Your task to perform on an android device: turn on the 12-hour format for clock Image 0: 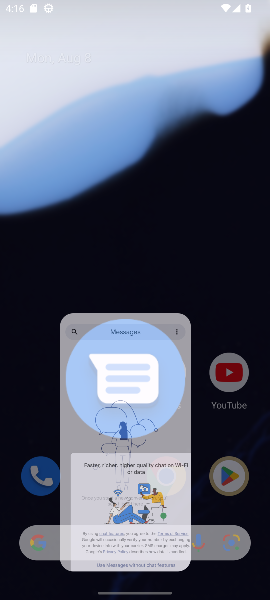
Step 0: click (72, 208)
Your task to perform on an android device: turn on the 12-hour format for clock Image 1: 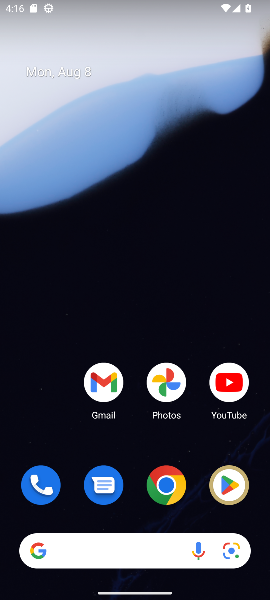
Step 1: drag from (158, 574) to (159, 102)
Your task to perform on an android device: turn on the 12-hour format for clock Image 2: 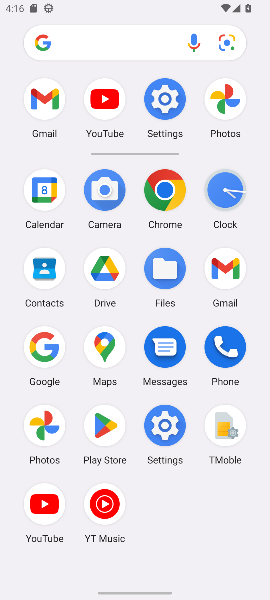
Step 2: drag from (168, 285) to (164, 25)
Your task to perform on an android device: turn on the 12-hour format for clock Image 3: 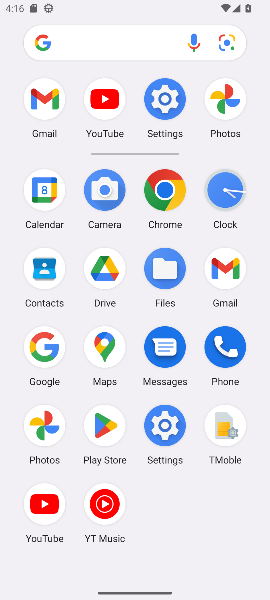
Step 3: click (228, 164)
Your task to perform on an android device: turn on the 12-hour format for clock Image 4: 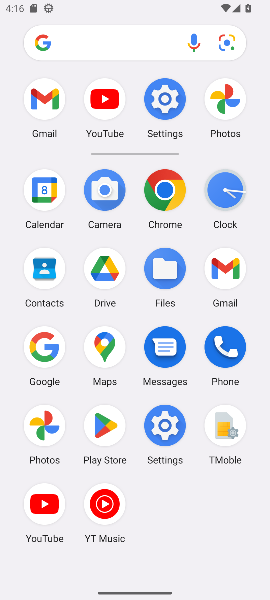
Step 4: click (227, 176)
Your task to perform on an android device: turn on the 12-hour format for clock Image 5: 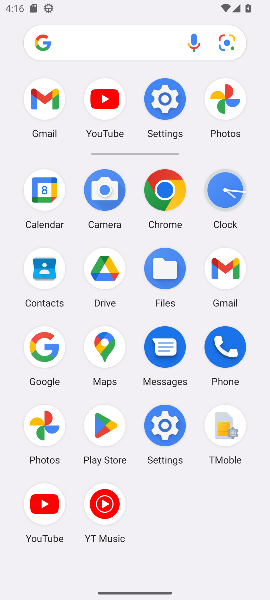
Step 5: click (227, 187)
Your task to perform on an android device: turn on the 12-hour format for clock Image 6: 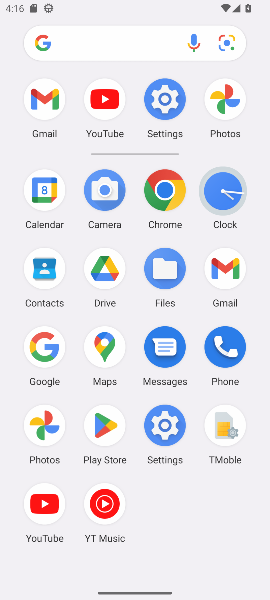
Step 6: click (227, 189)
Your task to perform on an android device: turn on the 12-hour format for clock Image 7: 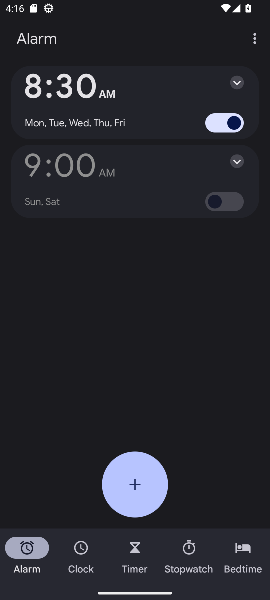
Step 7: click (257, 42)
Your task to perform on an android device: turn on the 12-hour format for clock Image 8: 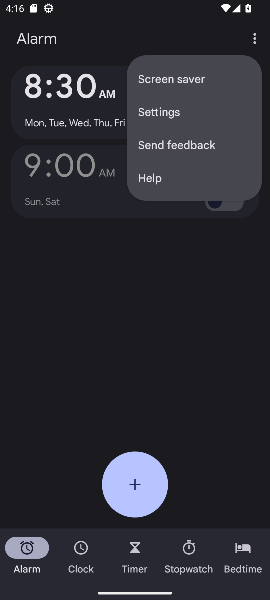
Step 8: click (172, 116)
Your task to perform on an android device: turn on the 12-hour format for clock Image 9: 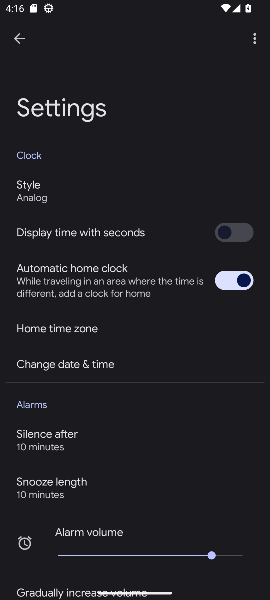
Step 9: click (62, 369)
Your task to perform on an android device: turn on the 12-hour format for clock Image 10: 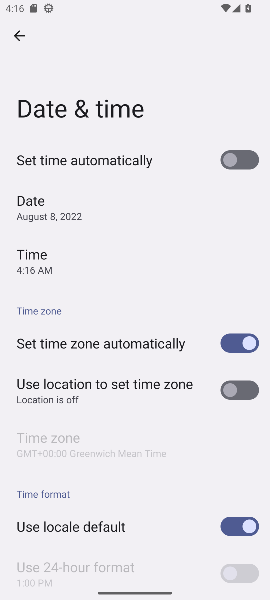
Step 10: task complete